Your task to perform on an android device: make emails show in primary in the gmail app Image 0: 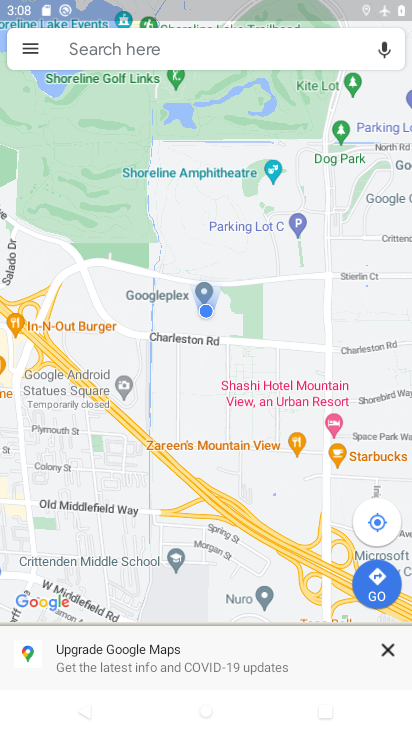
Step 0: press home button
Your task to perform on an android device: make emails show in primary in the gmail app Image 1: 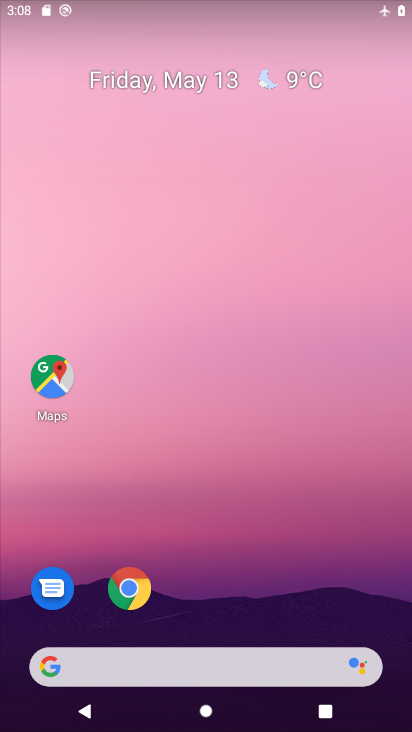
Step 1: drag from (286, 591) to (143, 15)
Your task to perform on an android device: make emails show in primary in the gmail app Image 2: 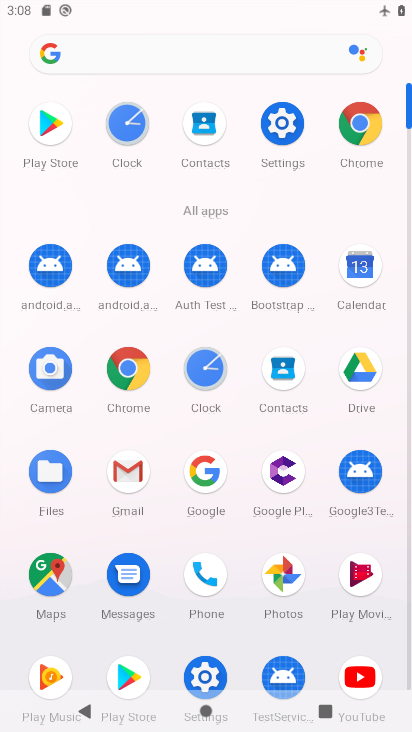
Step 2: click (129, 473)
Your task to perform on an android device: make emails show in primary in the gmail app Image 3: 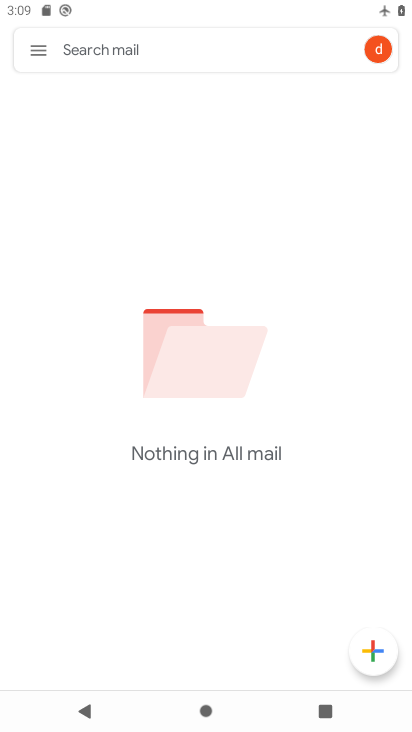
Step 3: click (40, 52)
Your task to perform on an android device: make emails show in primary in the gmail app Image 4: 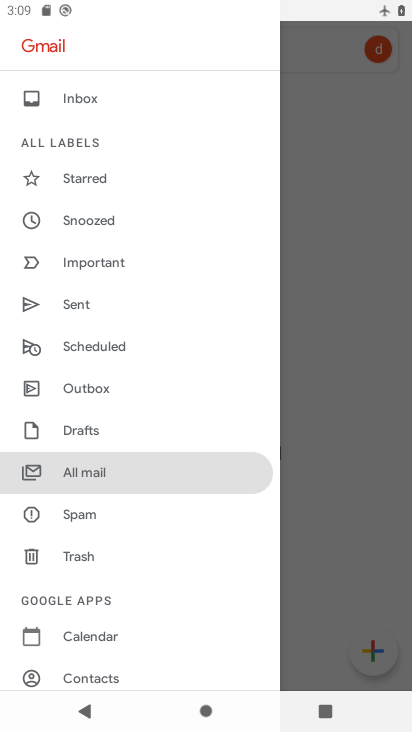
Step 4: drag from (194, 646) to (156, 428)
Your task to perform on an android device: make emails show in primary in the gmail app Image 5: 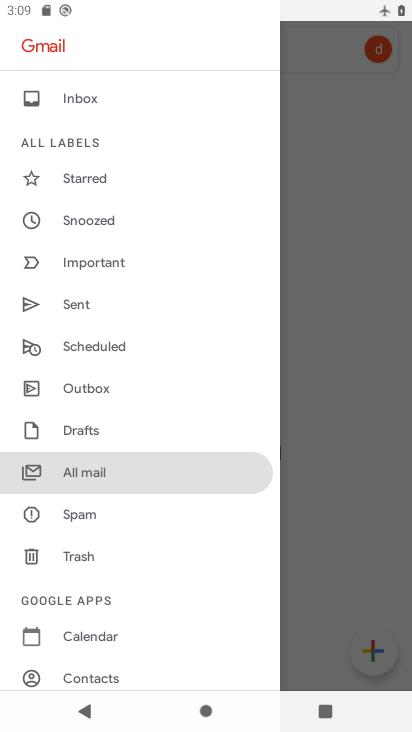
Step 5: drag from (158, 639) to (133, 427)
Your task to perform on an android device: make emails show in primary in the gmail app Image 6: 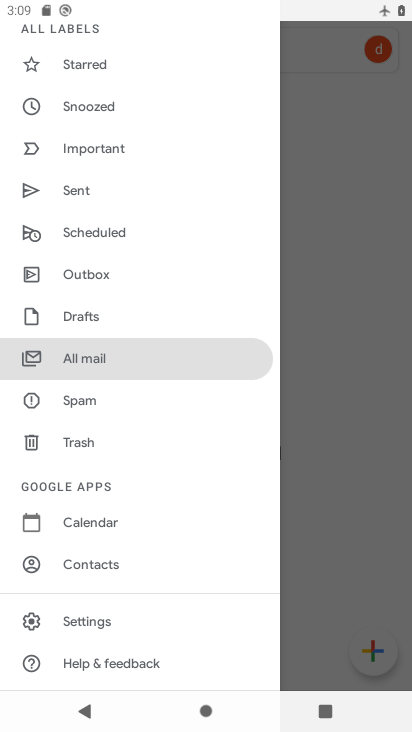
Step 6: click (100, 623)
Your task to perform on an android device: make emails show in primary in the gmail app Image 7: 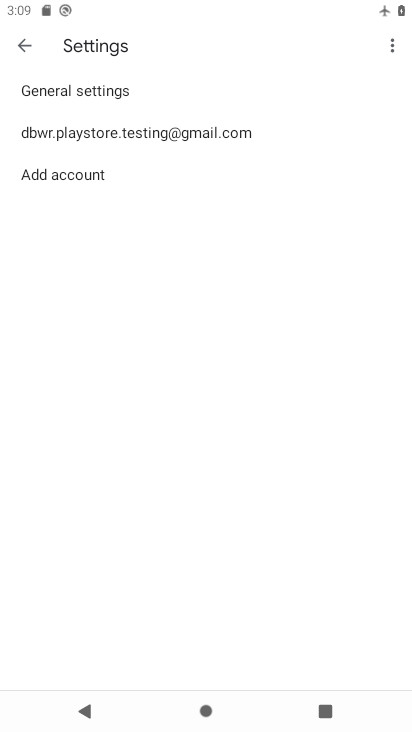
Step 7: click (84, 132)
Your task to perform on an android device: make emails show in primary in the gmail app Image 8: 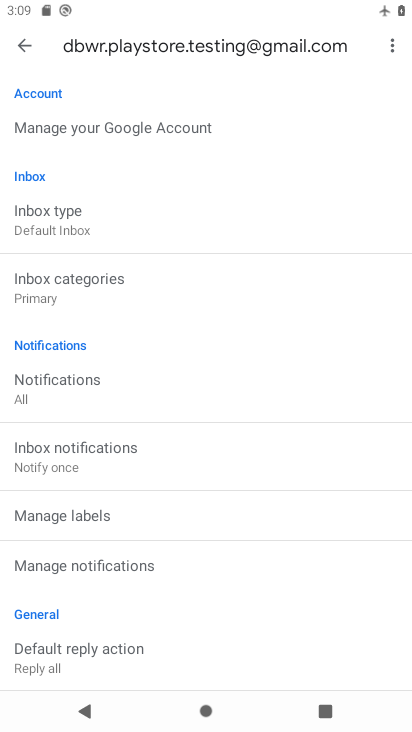
Step 8: click (81, 234)
Your task to perform on an android device: make emails show in primary in the gmail app Image 9: 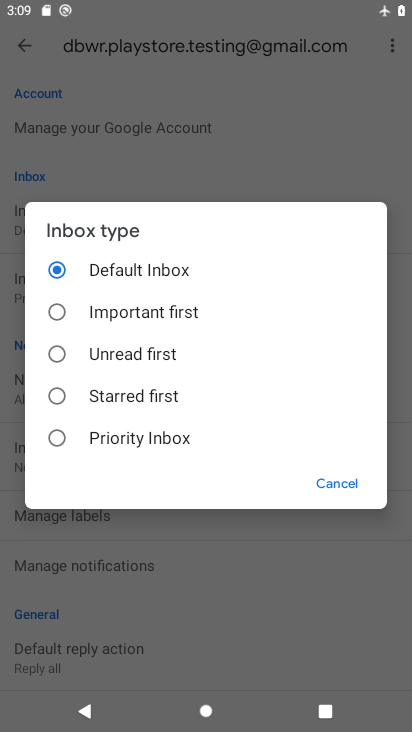
Step 9: click (138, 435)
Your task to perform on an android device: make emails show in primary in the gmail app Image 10: 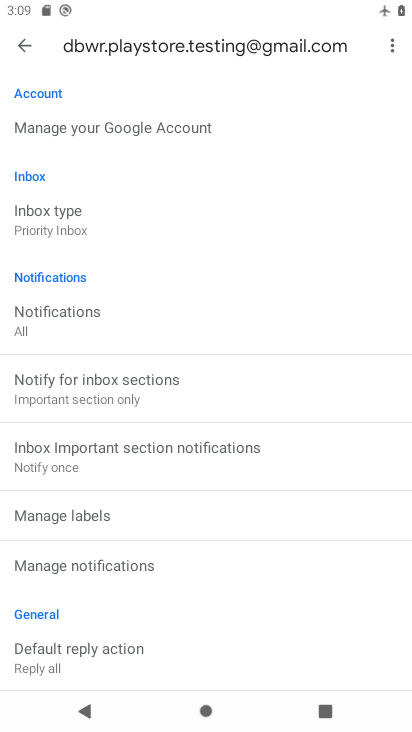
Step 10: task complete